Your task to perform on an android device: turn off javascript in the chrome app Image 0: 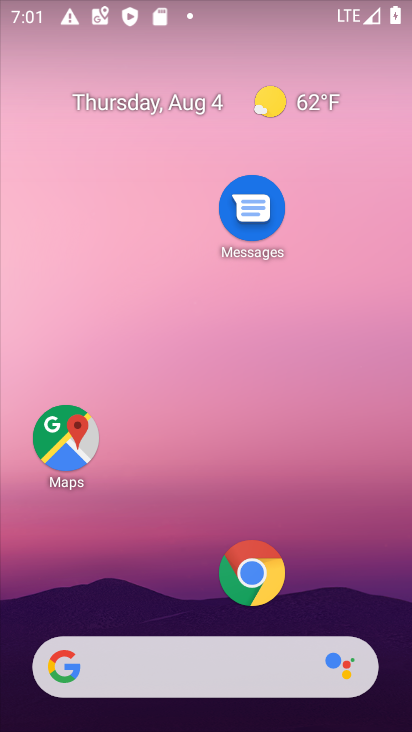
Step 0: press home button
Your task to perform on an android device: turn off javascript in the chrome app Image 1: 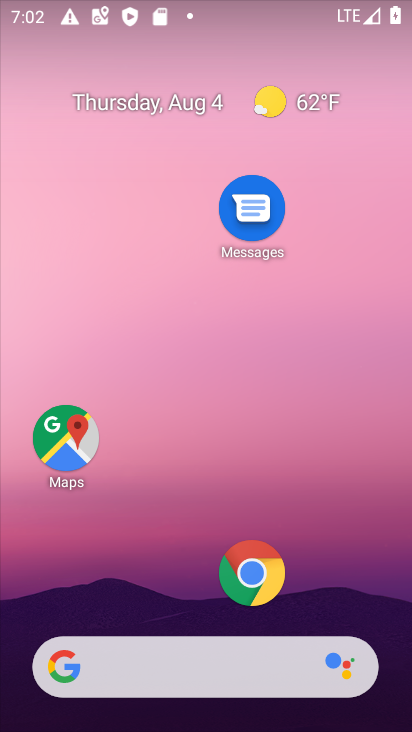
Step 1: drag from (171, 496) to (291, 14)
Your task to perform on an android device: turn off javascript in the chrome app Image 2: 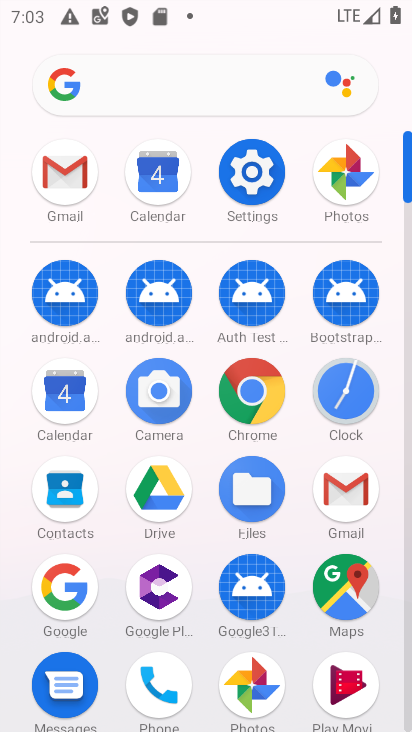
Step 2: click (250, 393)
Your task to perform on an android device: turn off javascript in the chrome app Image 3: 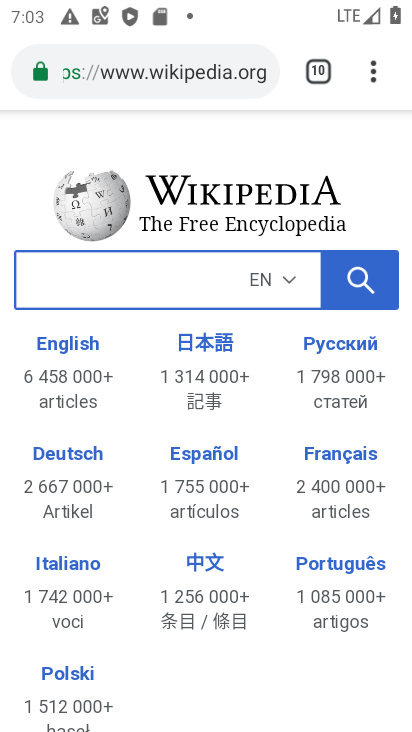
Step 3: drag from (379, 79) to (172, 575)
Your task to perform on an android device: turn off javascript in the chrome app Image 4: 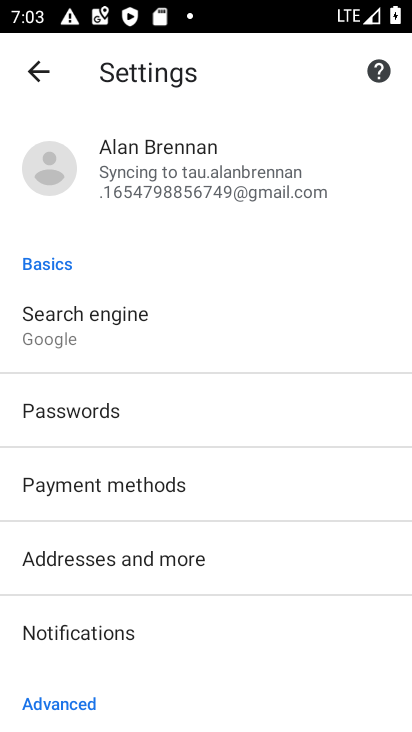
Step 4: drag from (267, 629) to (236, 262)
Your task to perform on an android device: turn off javascript in the chrome app Image 5: 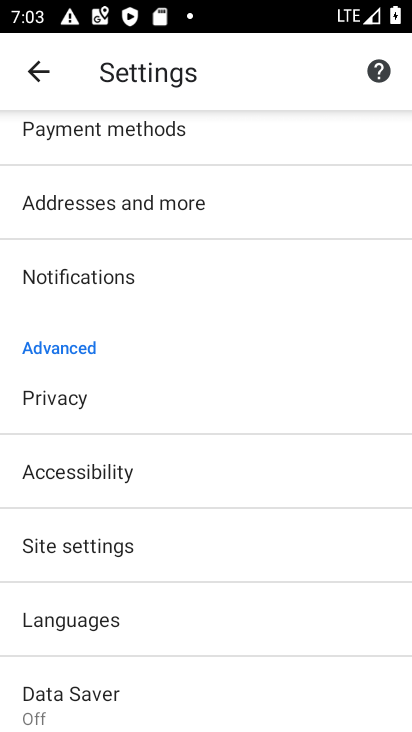
Step 5: click (61, 546)
Your task to perform on an android device: turn off javascript in the chrome app Image 6: 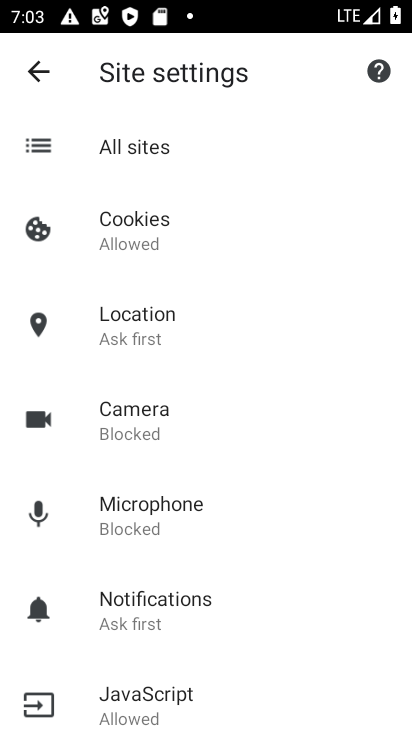
Step 6: click (135, 691)
Your task to perform on an android device: turn off javascript in the chrome app Image 7: 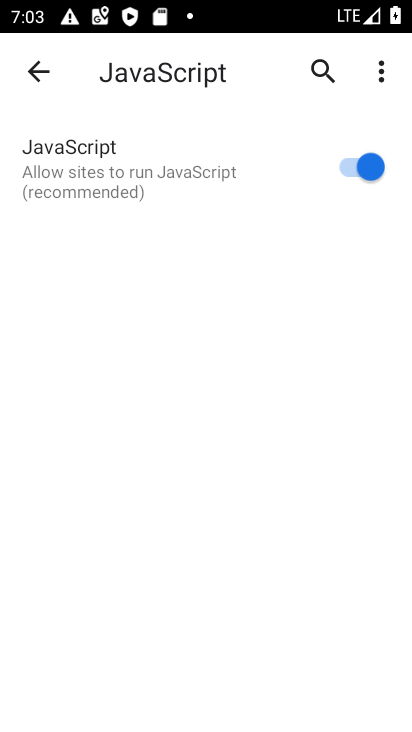
Step 7: click (358, 163)
Your task to perform on an android device: turn off javascript in the chrome app Image 8: 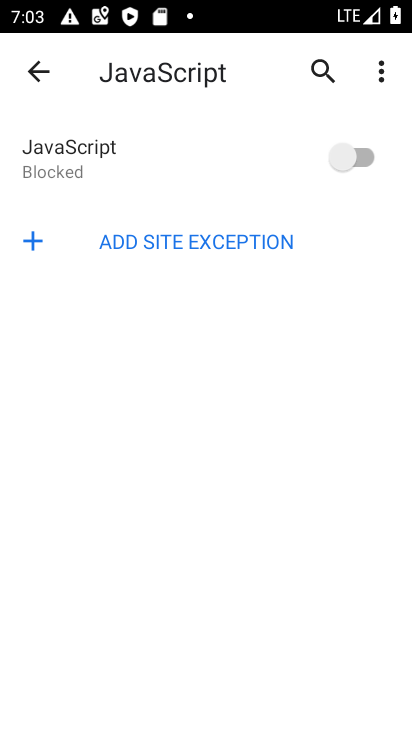
Step 8: task complete